Your task to perform on an android device: Open the calendar app, open the side menu, and click the "Day" option Image 0: 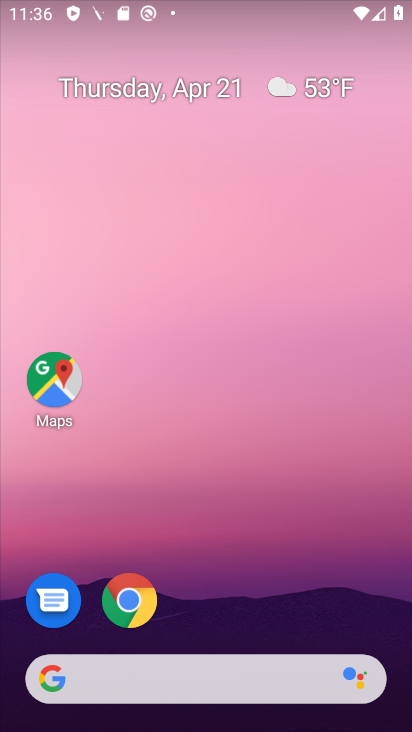
Step 0: drag from (251, 601) to (226, 36)
Your task to perform on an android device: Open the calendar app, open the side menu, and click the "Day" option Image 1: 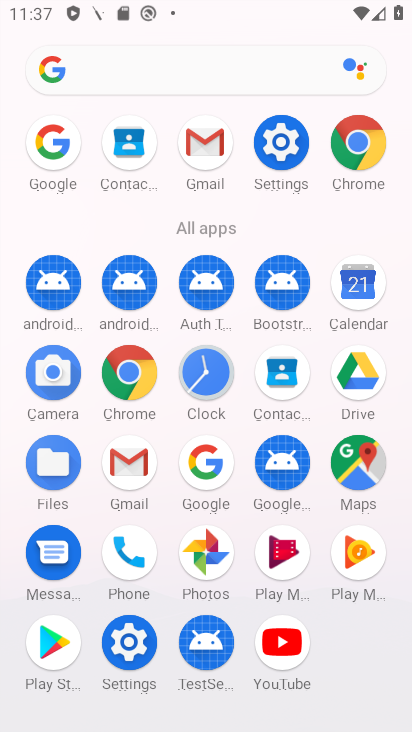
Step 1: click (362, 276)
Your task to perform on an android device: Open the calendar app, open the side menu, and click the "Day" option Image 2: 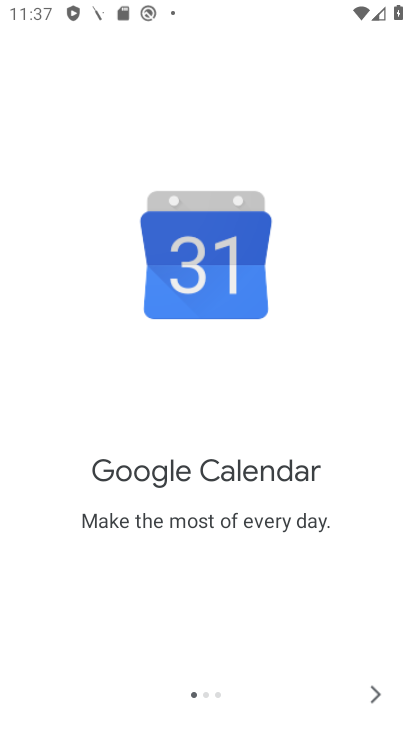
Step 2: click (375, 697)
Your task to perform on an android device: Open the calendar app, open the side menu, and click the "Day" option Image 3: 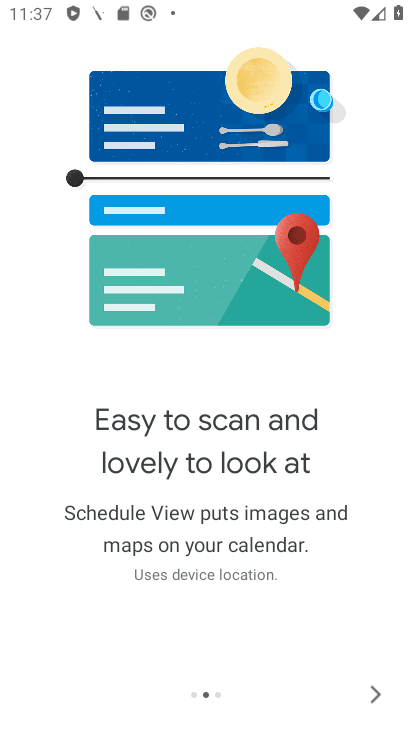
Step 3: click (375, 697)
Your task to perform on an android device: Open the calendar app, open the side menu, and click the "Day" option Image 4: 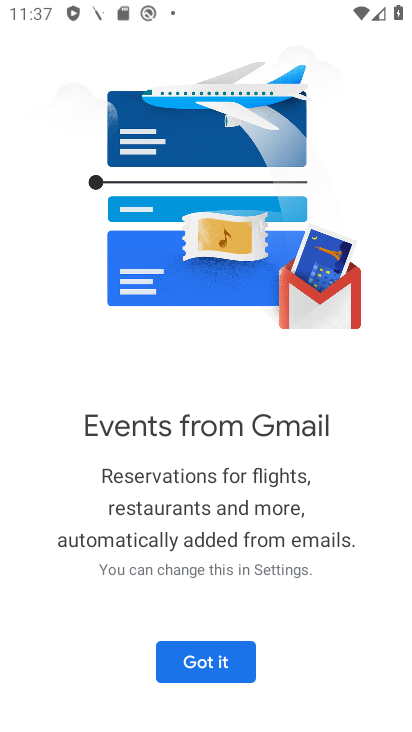
Step 4: click (206, 652)
Your task to perform on an android device: Open the calendar app, open the side menu, and click the "Day" option Image 5: 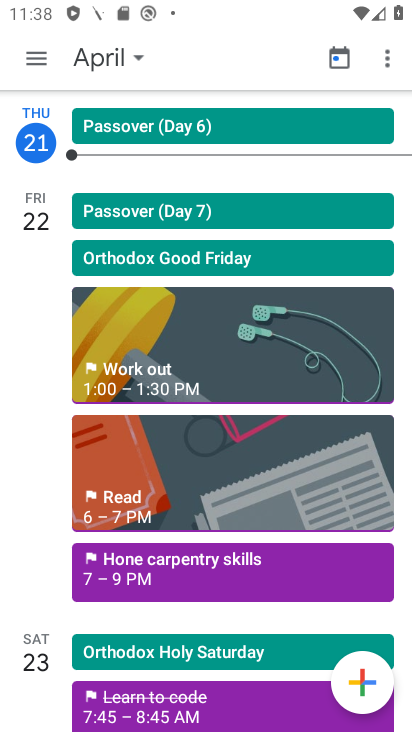
Step 5: click (36, 53)
Your task to perform on an android device: Open the calendar app, open the side menu, and click the "Day" option Image 6: 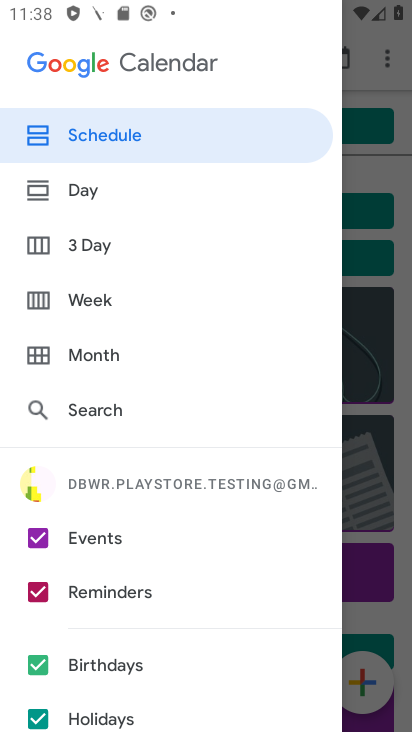
Step 6: click (106, 193)
Your task to perform on an android device: Open the calendar app, open the side menu, and click the "Day" option Image 7: 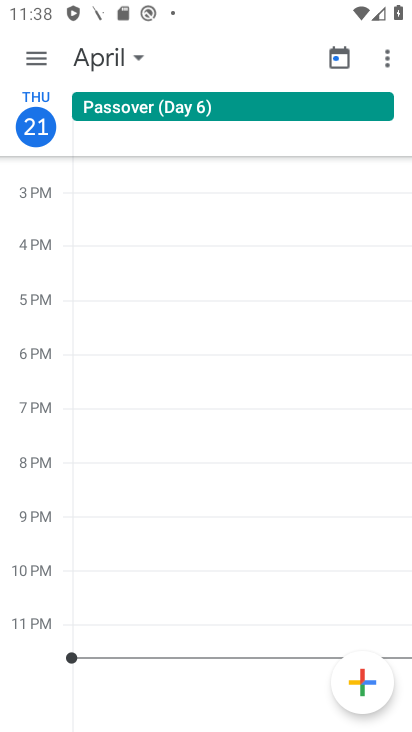
Step 7: task complete